Your task to perform on an android device: What is the recent news? Image 0: 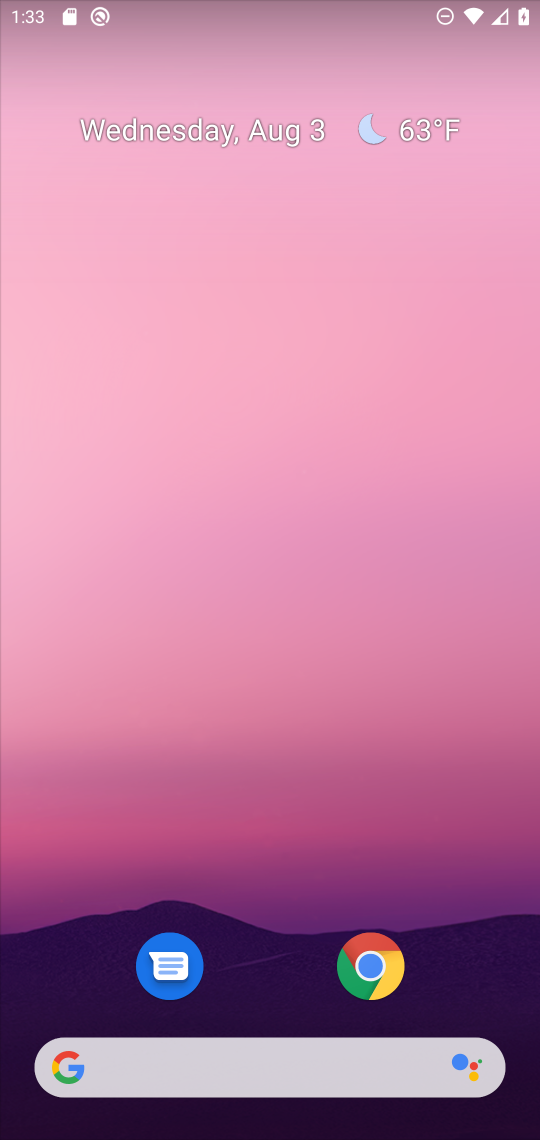
Step 0: drag from (256, 892) to (260, 493)
Your task to perform on an android device: What is the recent news? Image 1: 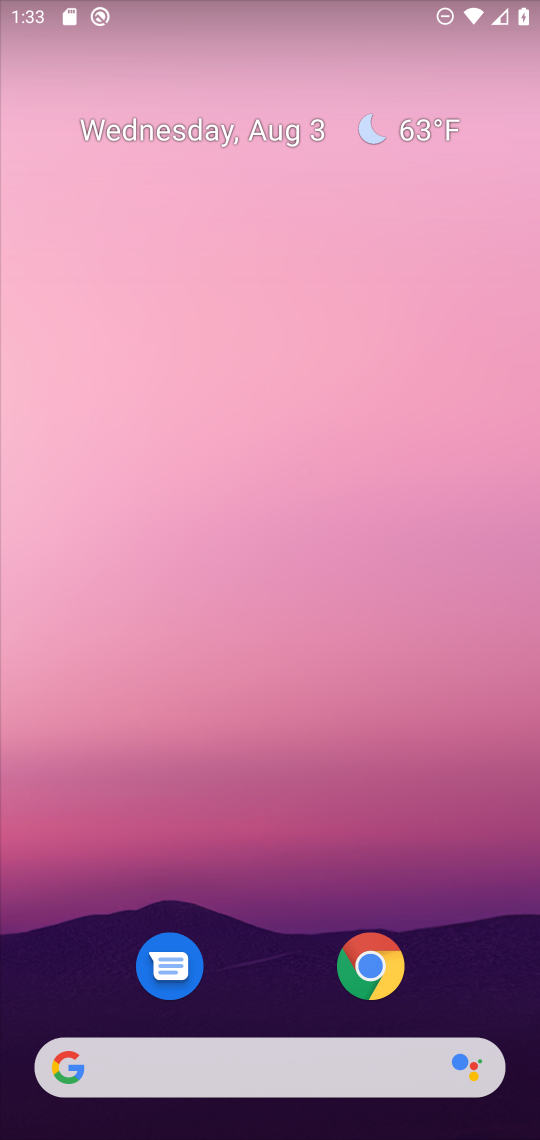
Step 1: drag from (278, 987) to (284, 172)
Your task to perform on an android device: What is the recent news? Image 2: 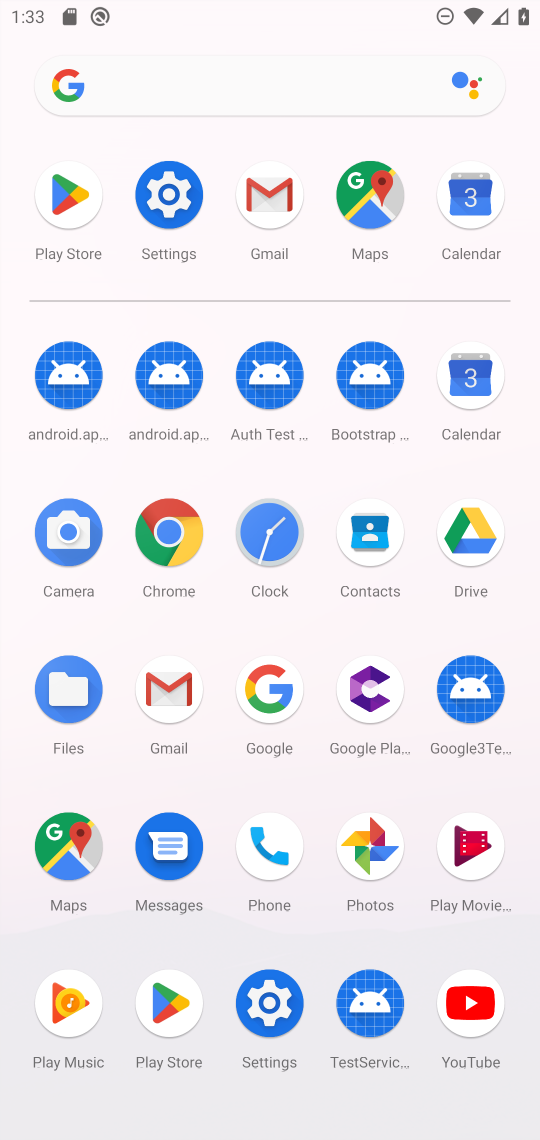
Step 2: click (266, 703)
Your task to perform on an android device: What is the recent news? Image 3: 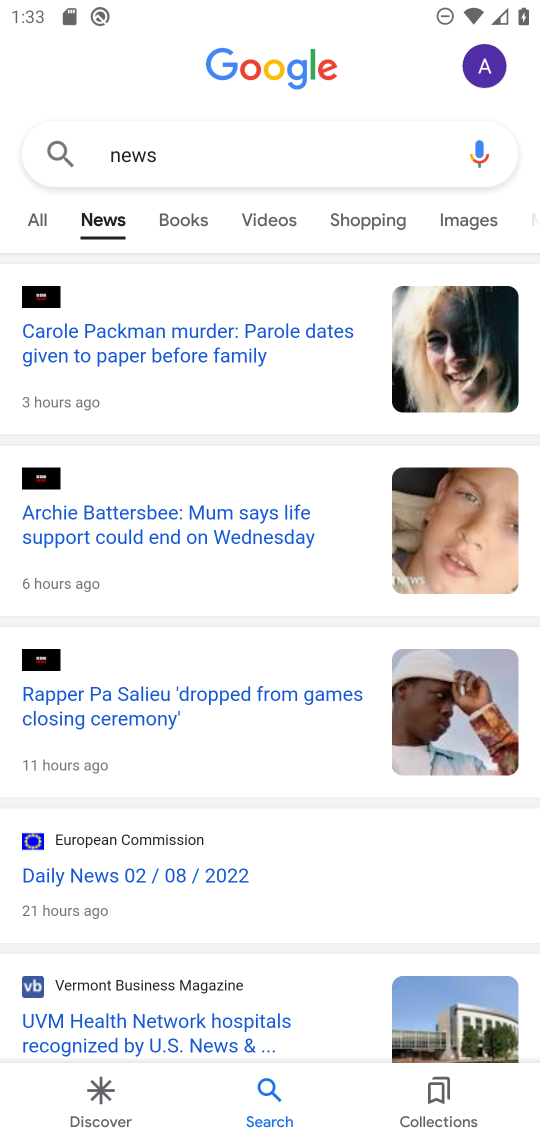
Step 3: click (261, 160)
Your task to perform on an android device: What is the recent news? Image 4: 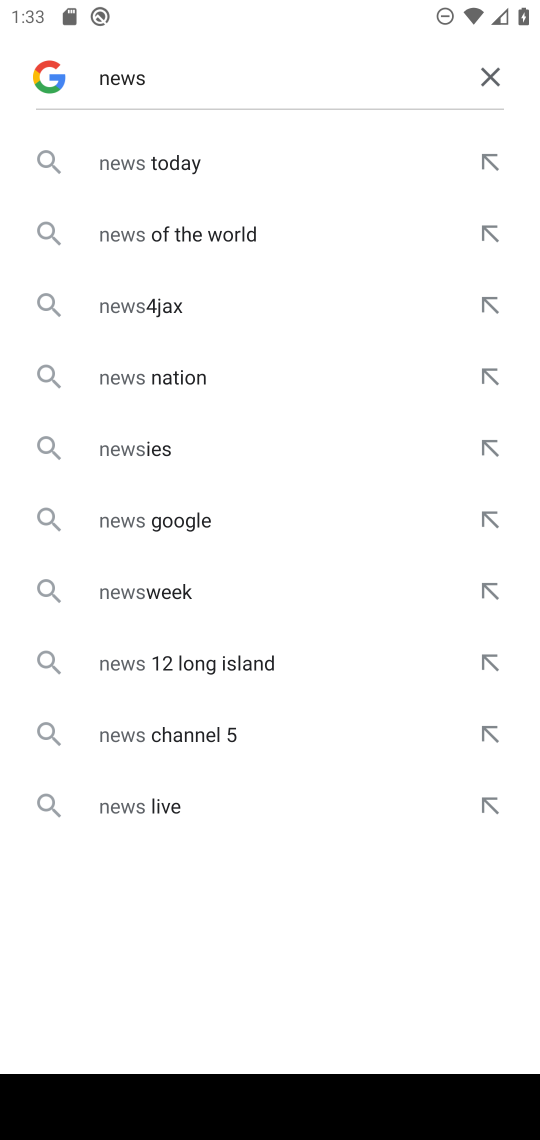
Step 4: click (188, 171)
Your task to perform on an android device: What is the recent news? Image 5: 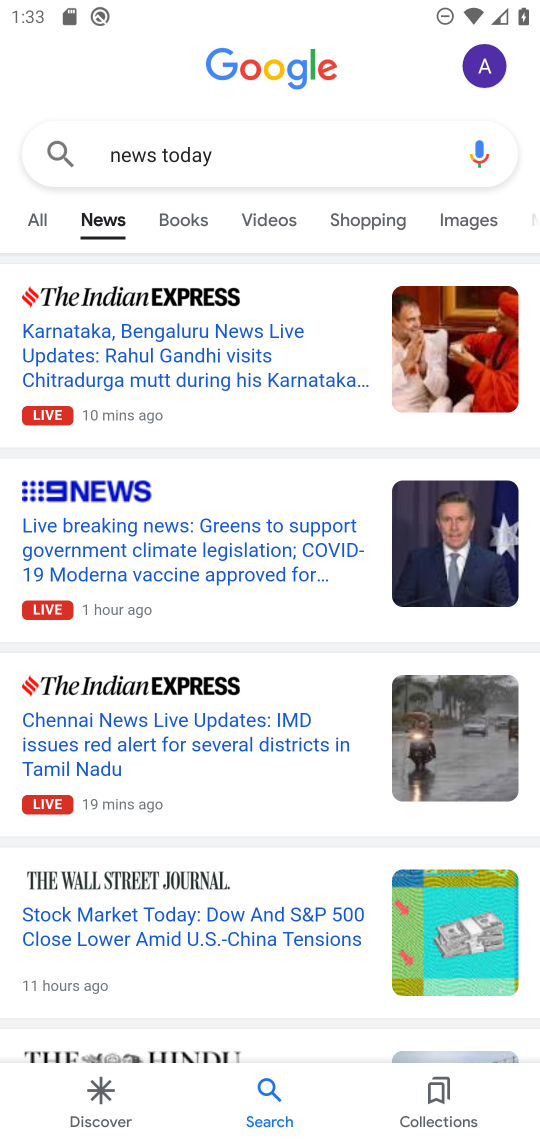
Step 5: task complete